Your task to perform on an android device: toggle show notifications on the lock screen Image 0: 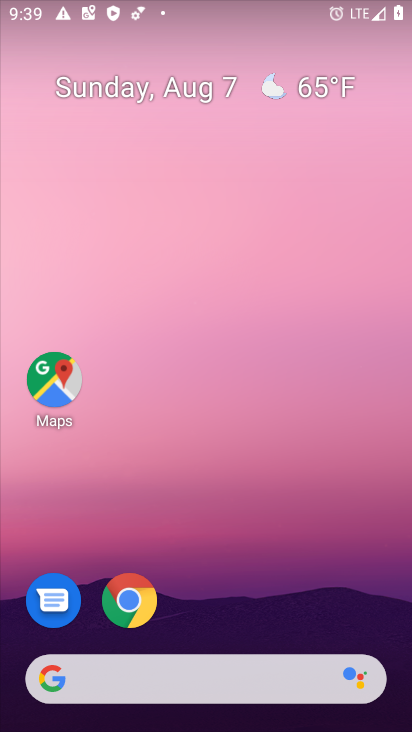
Step 0: drag from (196, 509) to (203, 68)
Your task to perform on an android device: toggle show notifications on the lock screen Image 1: 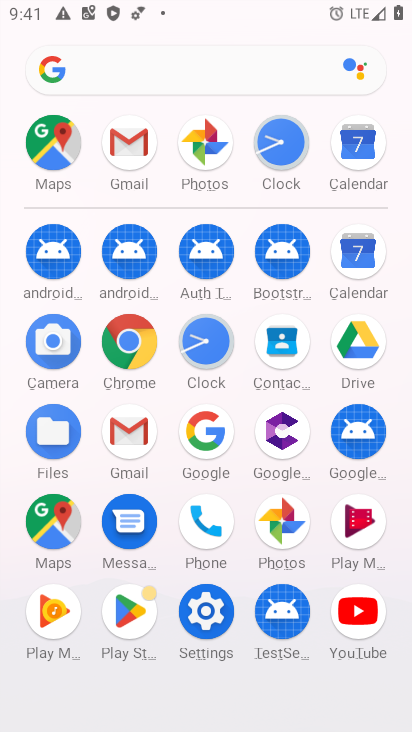
Step 1: click (208, 615)
Your task to perform on an android device: toggle show notifications on the lock screen Image 2: 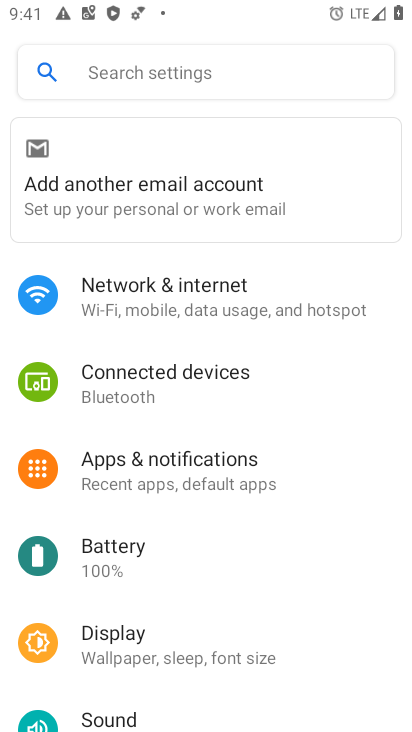
Step 2: click (179, 296)
Your task to perform on an android device: toggle show notifications on the lock screen Image 3: 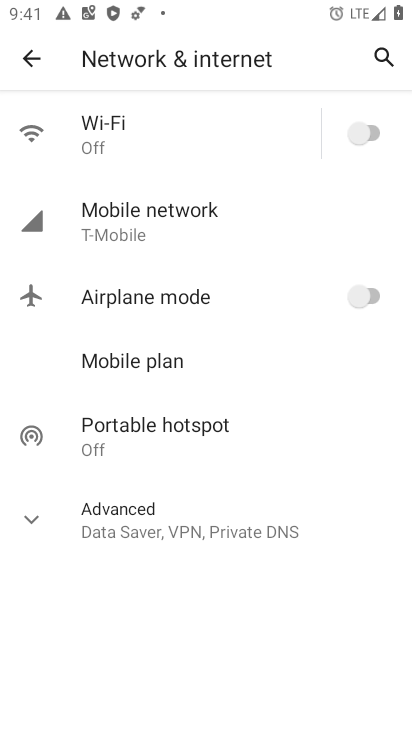
Step 3: press back button
Your task to perform on an android device: toggle show notifications on the lock screen Image 4: 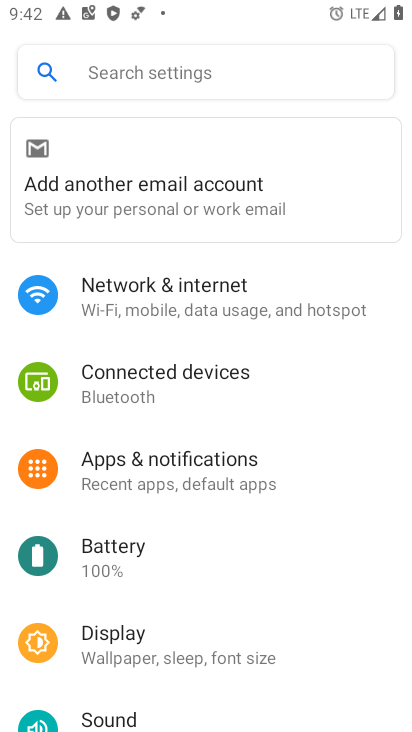
Step 4: drag from (166, 646) to (210, 309)
Your task to perform on an android device: toggle show notifications on the lock screen Image 5: 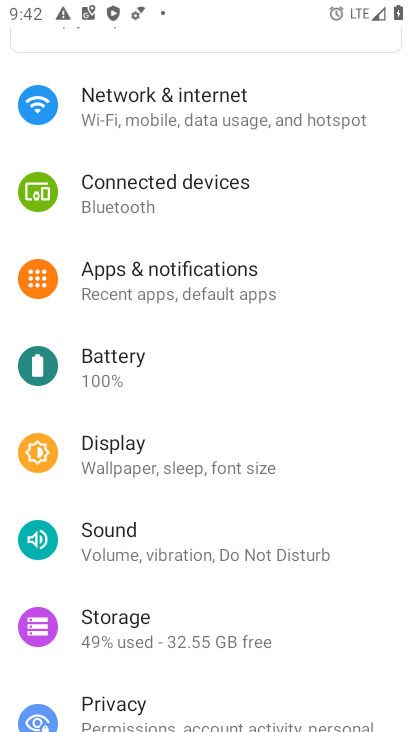
Step 5: drag from (163, 637) to (274, 127)
Your task to perform on an android device: toggle show notifications on the lock screen Image 6: 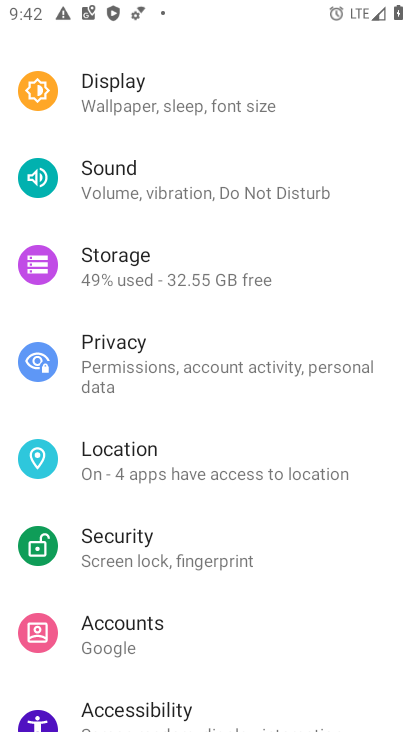
Step 6: drag from (197, 551) to (284, 86)
Your task to perform on an android device: toggle show notifications on the lock screen Image 7: 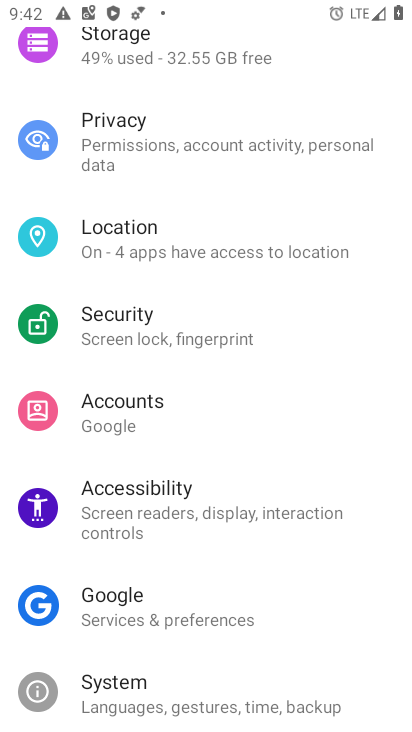
Step 7: click (251, 191)
Your task to perform on an android device: toggle show notifications on the lock screen Image 8: 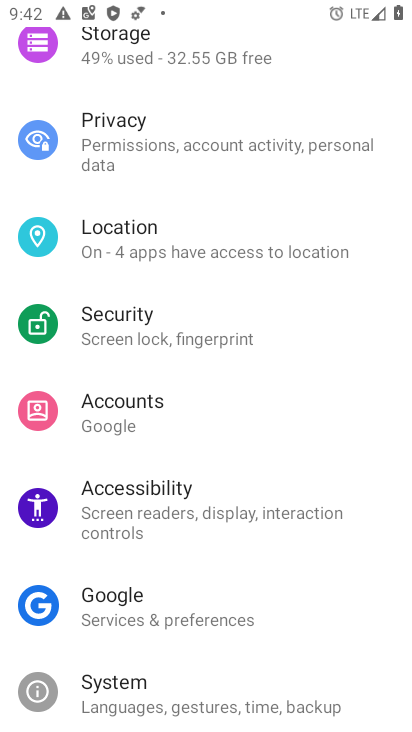
Step 8: drag from (263, 191) to (257, 628)
Your task to perform on an android device: toggle show notifications on the lock screen Image 9: 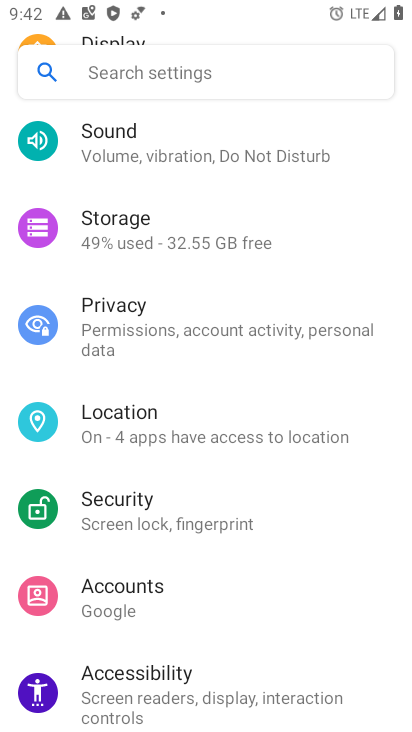
Step 9: drag from (221, 396) to (241, 269)
Your task to perform on an android device: toggle show notifications on the lock screen Image 10: 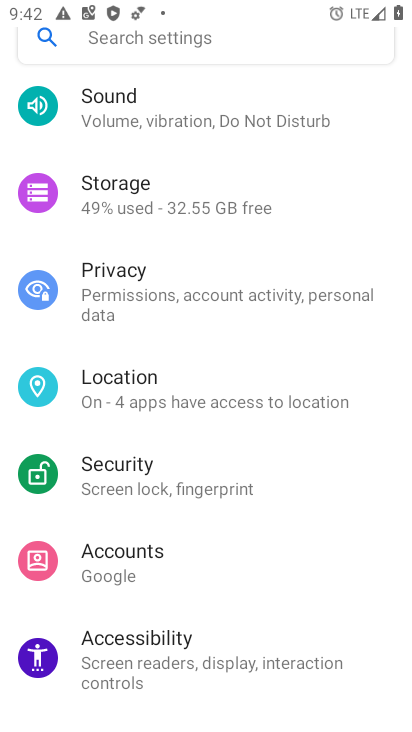
Step 10: drag from (205, 387) to (154, 678)
Your task to perform on an android device: toggle show notifications on the lock screen Image 11: 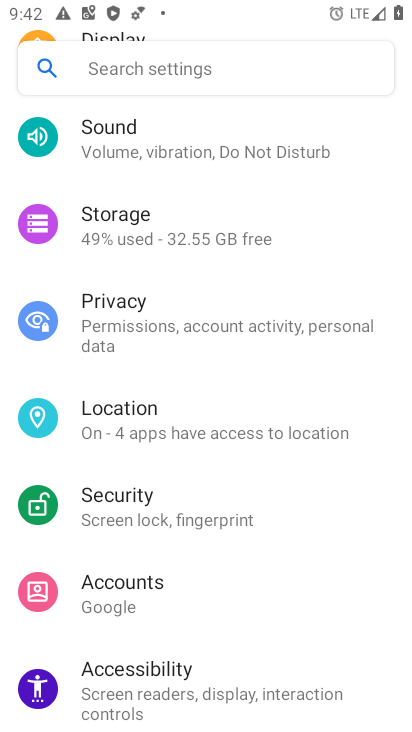
Step 11: drag from (283, 184) to (182, 554)
Your task to perform on an android device: toggle show notifications on the lock screen Image 12: 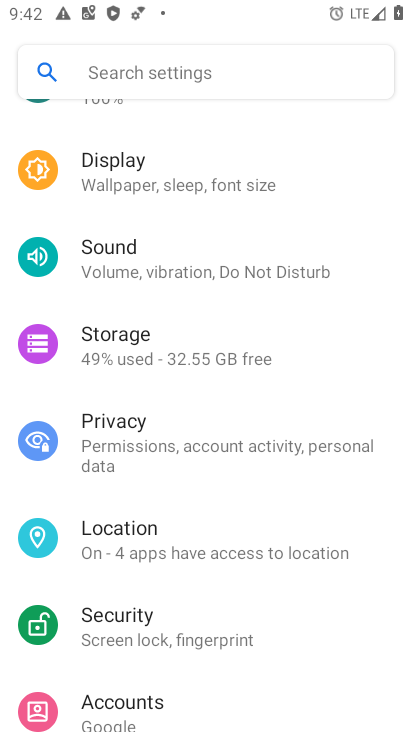
Step 12: drag from (202, 226) to (131, 629)
Your task to perform on an android device: toggle show notifications on the lock screen Image 13: 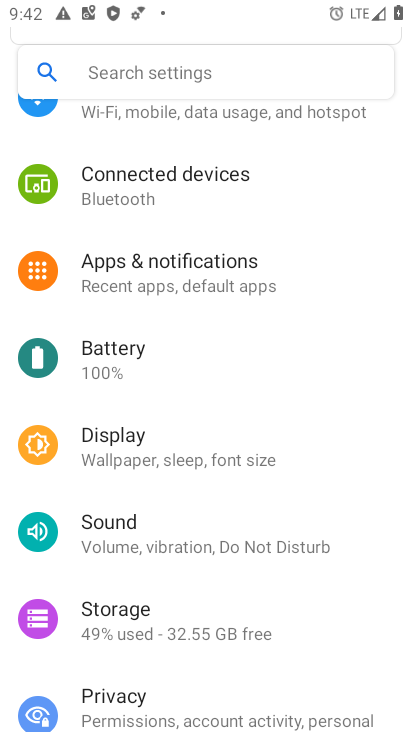
Step 13: click (190, 273)
Your task to perform on an android device: toggle show notifications on the lock screen Image 14: 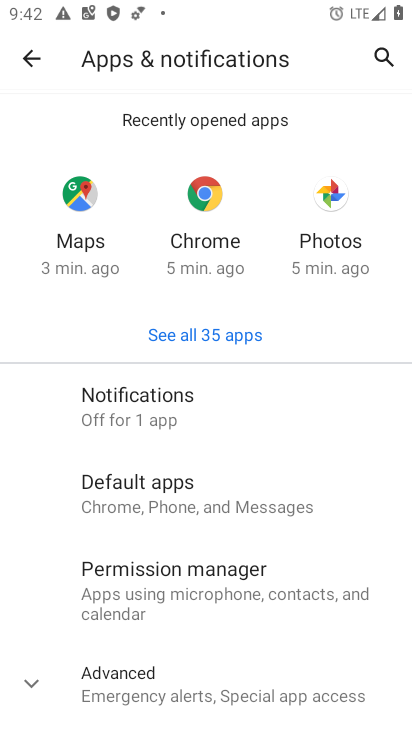
Step 14: click (148, 387)
Your task to perform on an android device: toggle show notifications on the lock screen Image 15: 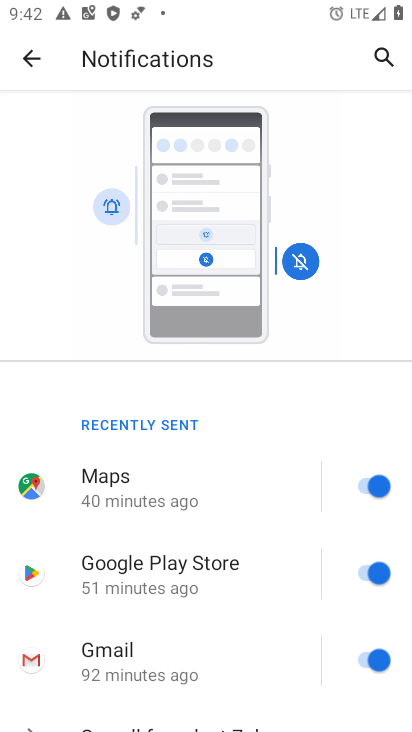
Step 15: drag from (209, 489) to (250, 234)
Your task to perform on an android device: toggle show notifications on the lock screen Image 16: 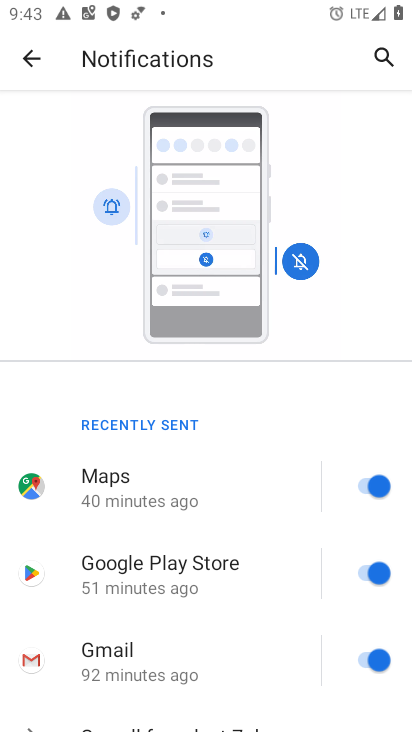
Step 16: drag from (137, 629) to (198, 209)
Your task to perform on an android device: toggle show notifications on the lock screen Image 17: 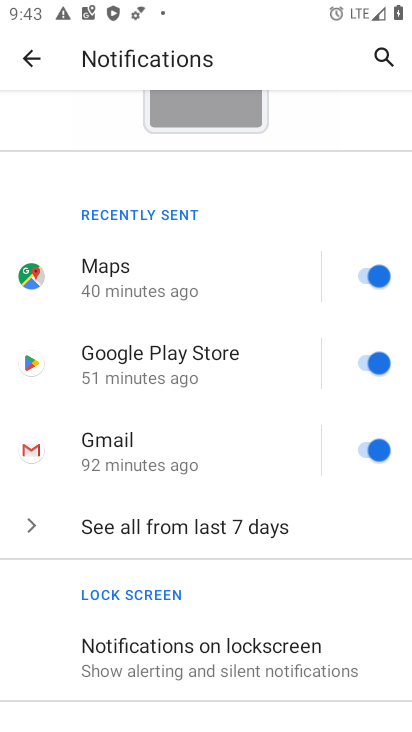
Step 17: click (242, 665)
Your task to perform on an android device: toggle show notifications on the lock screen Image 18: 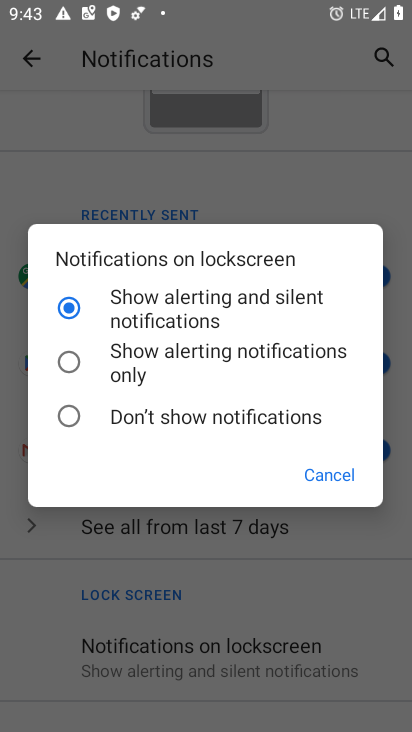
Step 18: click (78, 414)
Your task to perform on an android device: toggle show notifications on the lock screen Image 19: 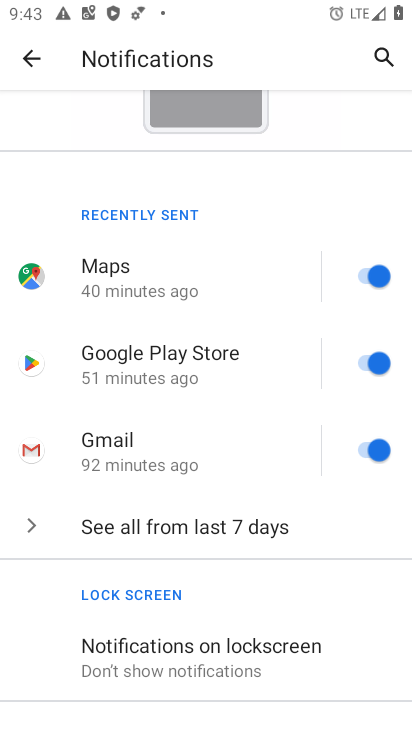
Step 19: task complete